Your task to perform on an android device: Open the Play Movies app and select the watchlist tab. Image 0: 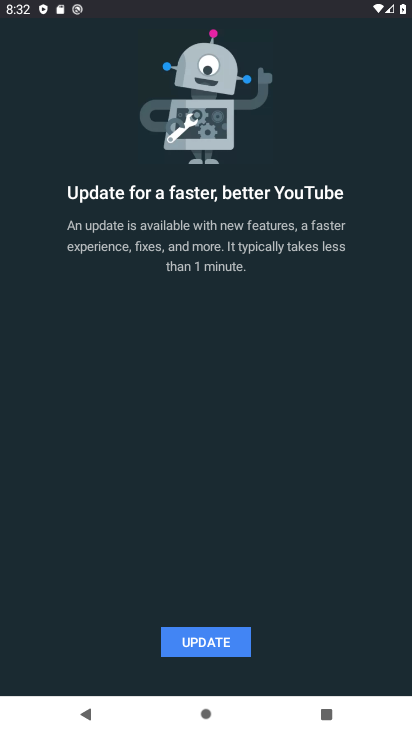
Step 0: press home button
Your task to perform on an android device: Open the Play Movies app and select the watchlist tab. Image 1: 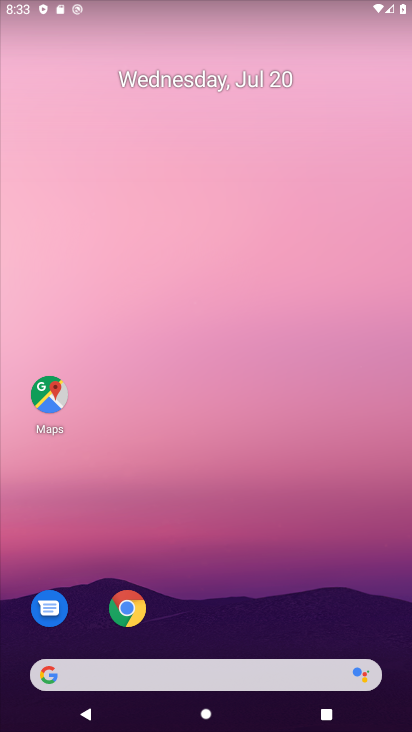
Step 1: drag from (296, 562) to (98, 0)
Your task to perform on an android device: Open the Play Movies app and select the watchlist tab. Image 2: 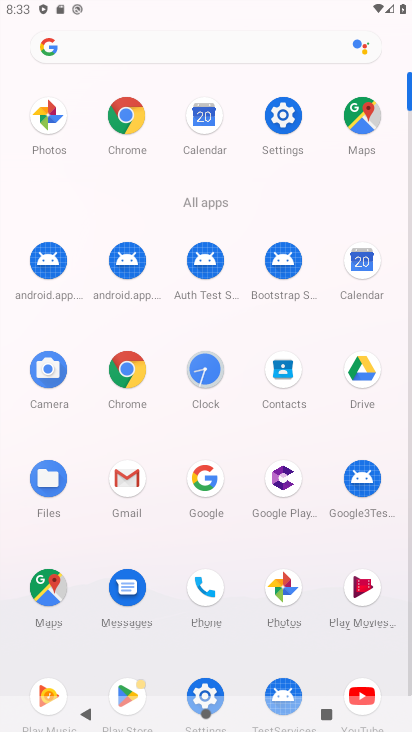
Step 2: click (364, 589)
Your task to perform on an android device: Open the Play Movies app and select the watchlist tab. Image 3: 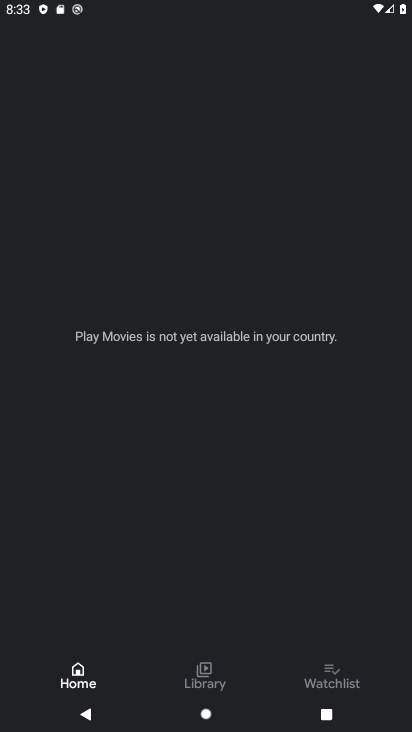
Step 3: click (327, 673)
Your task to perform on an android device: Open the Play Movies app and select the watchlist tab. Image 4: 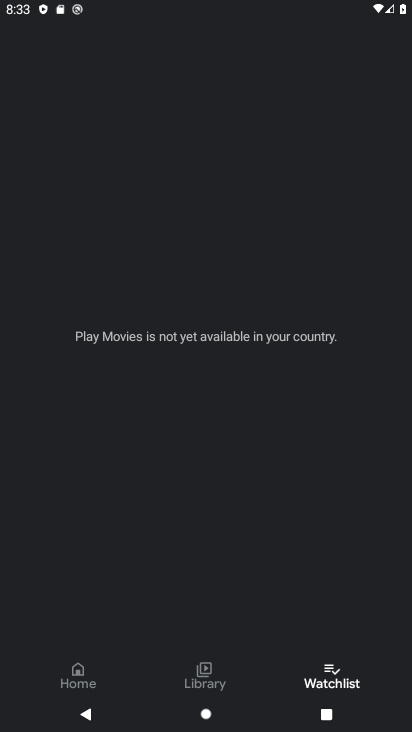
Step 4: task complete